Your task to perform on an android device: delete a single message in the gmail app Image 0: 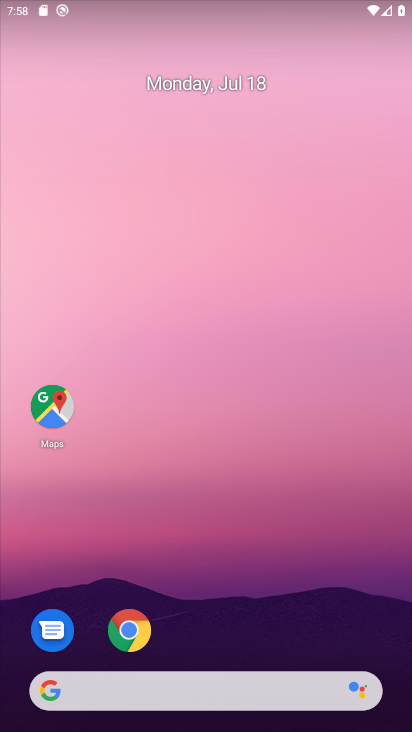
Step 0: drag from (193, 629) to (188, 263)
Your task to perform on an android device: delete a single message in the gmail app Image 1: 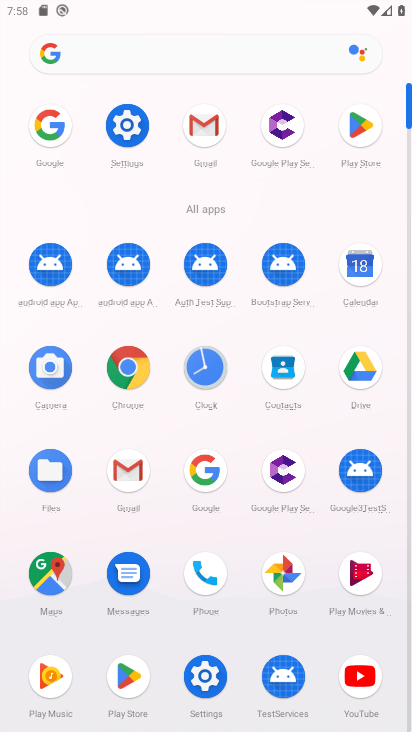
Step 1: click (213, 116)
Your task to perform on an android device: delete a single message in the gmail app Image 2: 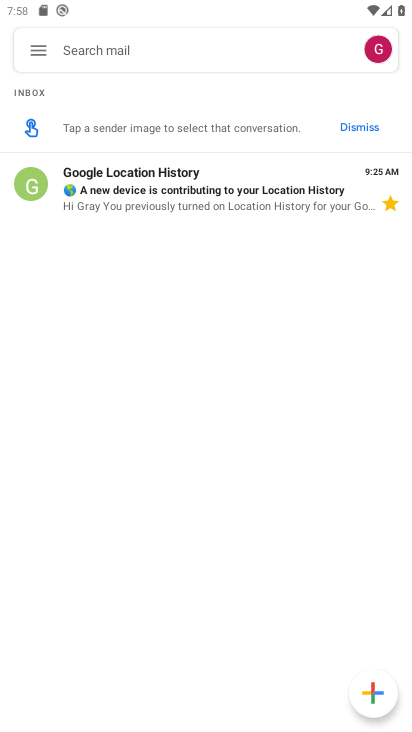
Step 2: click (214, 180)
Your task to perform on an android device: delete a single message in the gmail app Image 3: 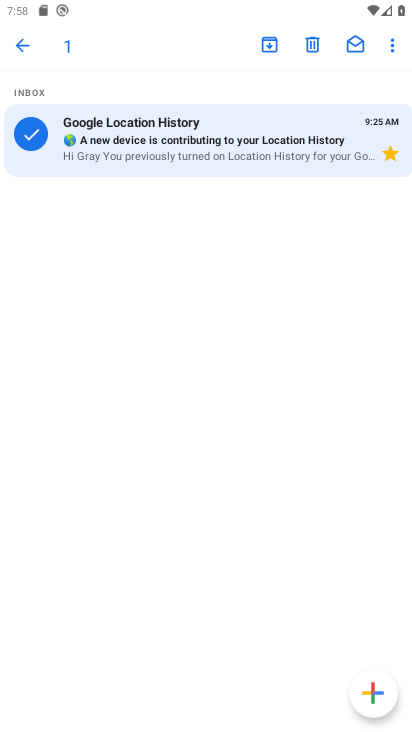
Step 3: click (302, 49)
Your task to perform on an android device: delete a single message in the gmail app Image 4: 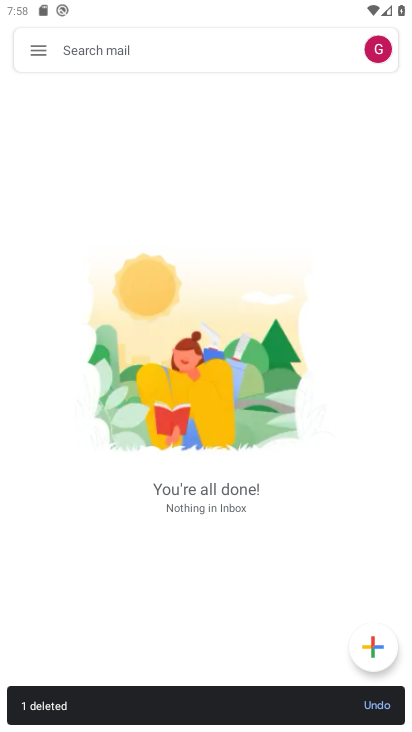
Step 4: task complete